Your task to perform on an android device: Search for razer deathadder on walmart.com, select the first entry, add it to the cart, then select checkout. Image 0: 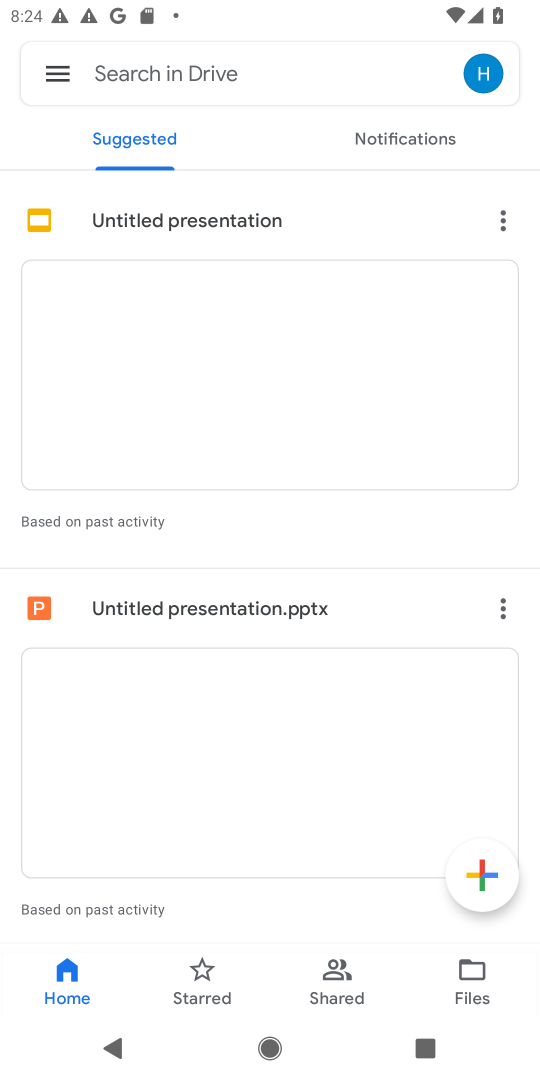
Step 0: press home button
Your task to perform on an android device: Search for razer deathadder on walmart.com, select the first entry, add it to the cart, then select checkout. Image 1: 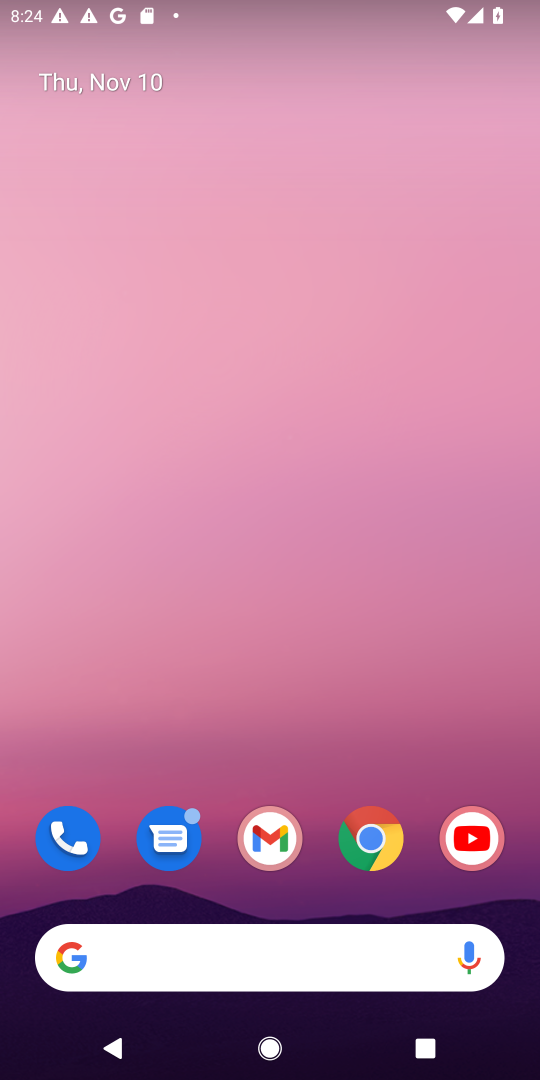
Step 1: drag from (307, 918) to (367, 83)
Your task to perform on an android device: Search for razer deathadder on walmart.com, select the first entry, add it to the cart, then select checkout. Image 2: 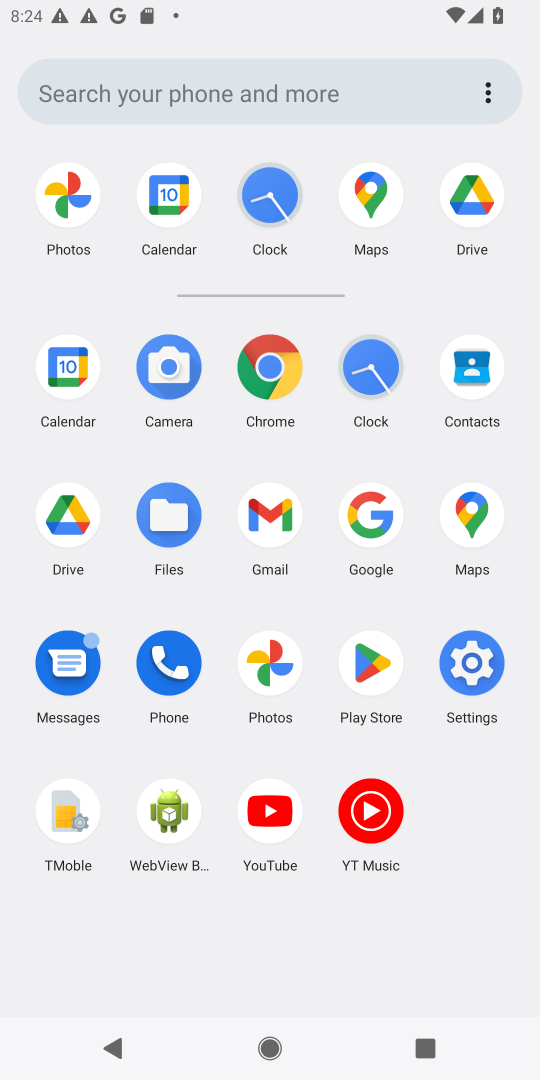
Step 2: click (278, 373)
Your task to perform on an android device: Search for razer deathadder on walmart.com, select the first entry, add it to the cart, then select checkout. Image 3: 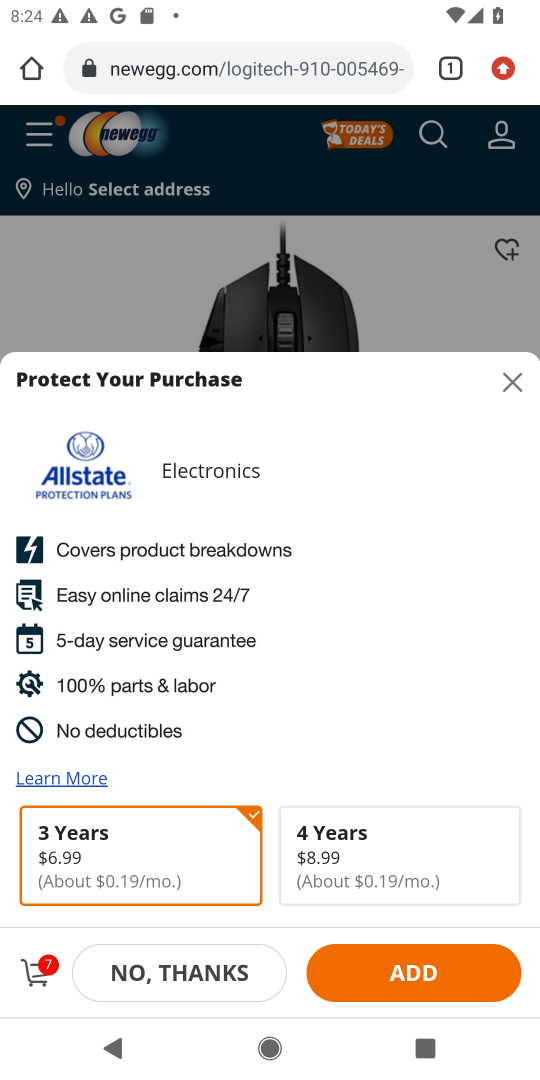
Step 3: click (244, 51)
Your task to perform on an android device: Search for razer deathadder on walmart.com, select the first entry, add it to the cart, then select checkout. Image 4: 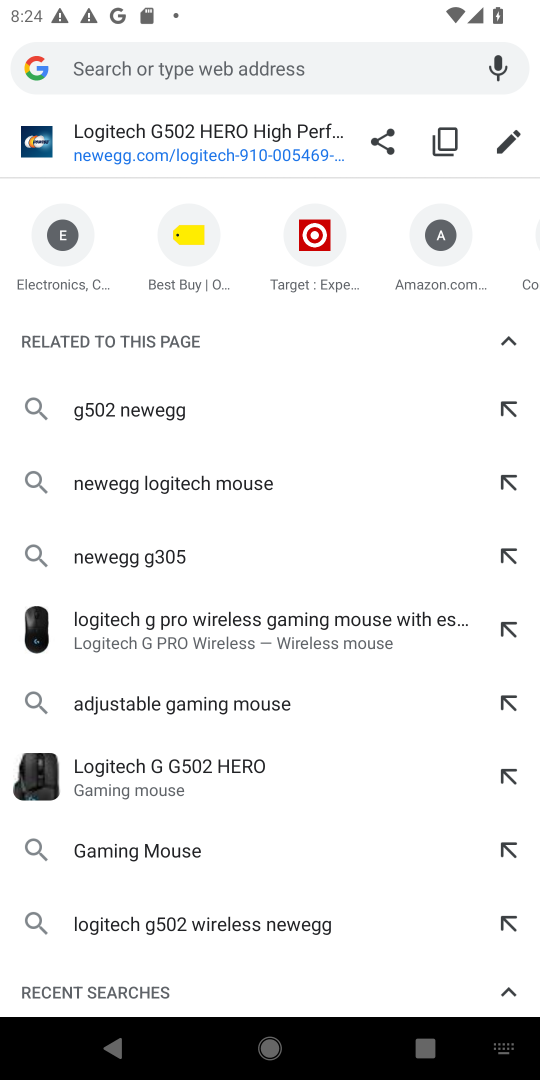
Step 4: type "walmart.com"
Your task to perform on an android device: Search for razer deathadder on walmart.com, select the first entry, add it to the cart, then select checkout. Image 5: 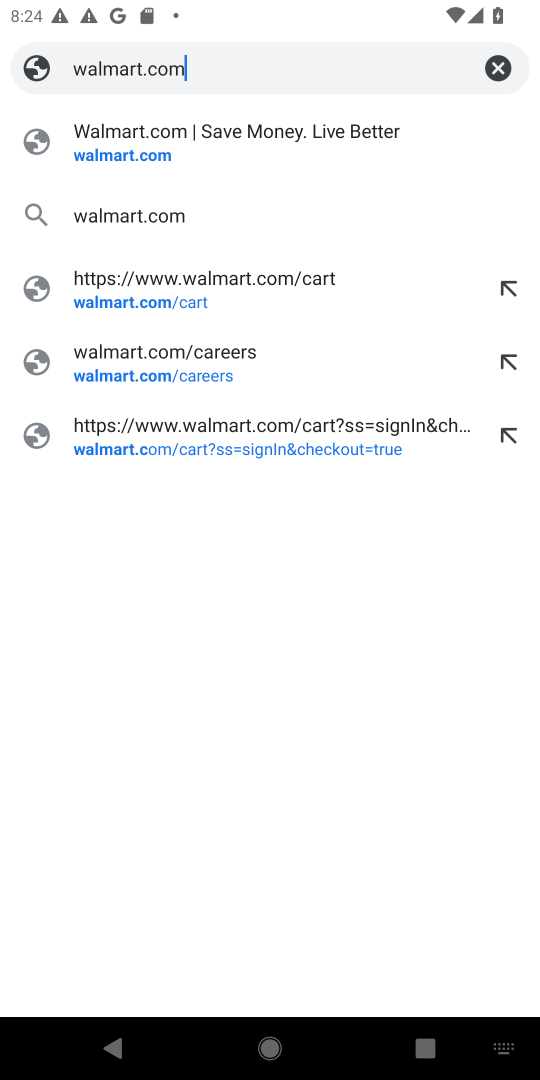
Step 5: press enter
Your task to perform on an android device: Search for razer deathadder on walmart.com, select the first entry, add it to the cart, then select checkout. Image 6: 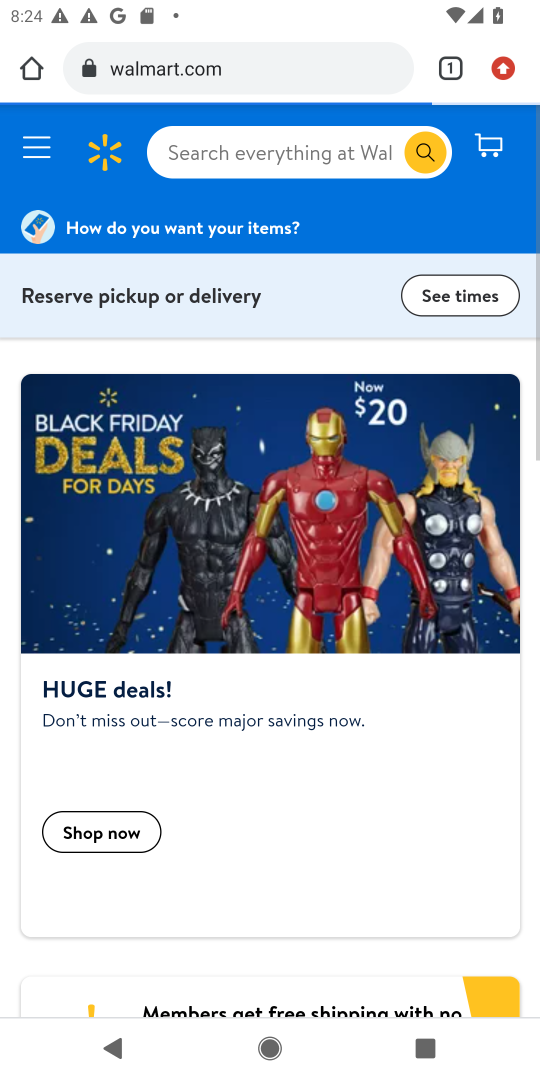
Step 6: click (240, 149)
Your task to perform on an android device: Search for razer deathadder on walmart.com, select the first entry, add it to the cart, then select checkout. Image 7: 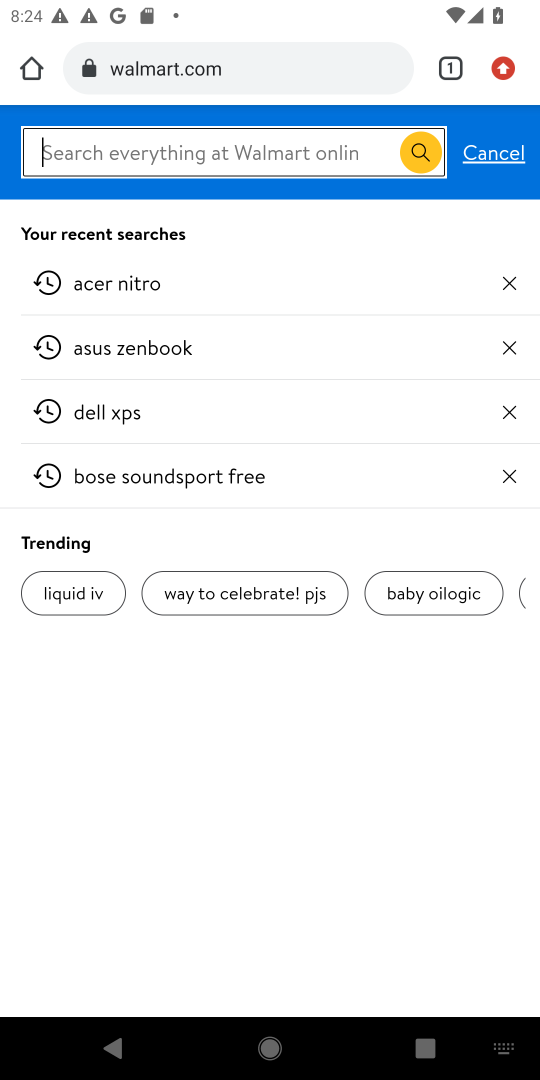
Step 7: type "razer deathadder"
Your task to perform on an android device: Search for razer deathadder on walmart.com, select the first entry, add it to the cart, then select checkout. Image 8: 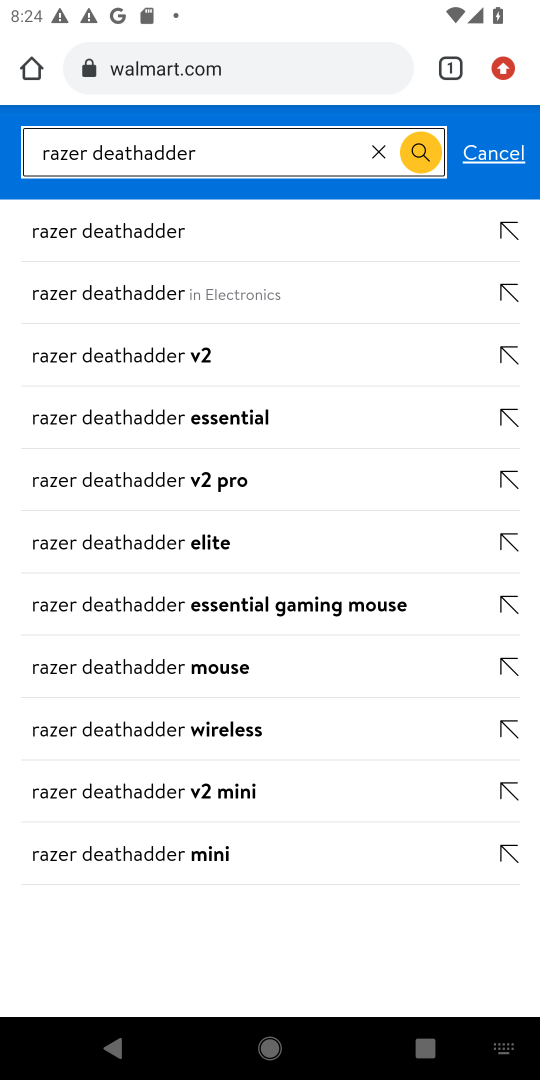
Step 8: press enter
Your task to perform on an android device: Search for razer deathadder on walmart.com, select the first entry, add it to the cart, then select checkout. Image 9: 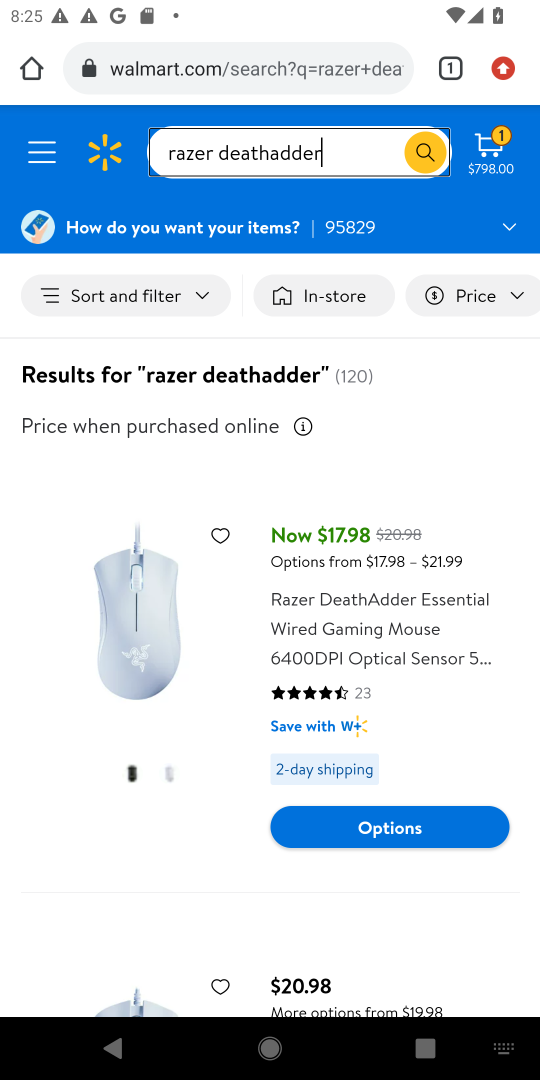
Step 9: drag from (415, 639) to (432, 399)
Your task to perform on an android device: Search for razer deathadder on walmart.com, select the first entry, add it to the cart, then select checkout. Image 10: 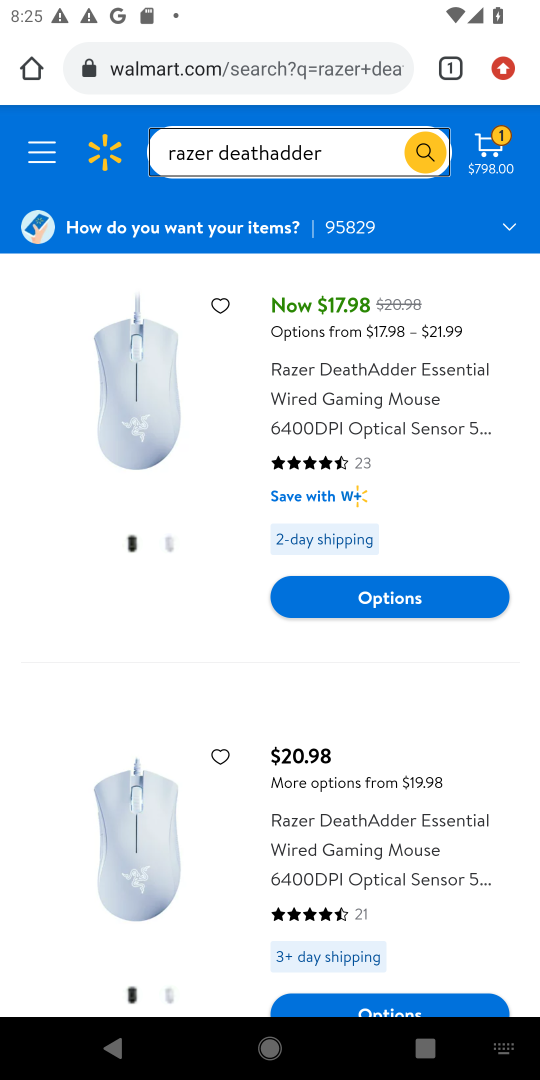
Step 10: click (438, 593)
Your task to perform on an android device: Search for razer deathadder on walmart.com, select the first entry, add it to the cart, then select checkout. Image 11: 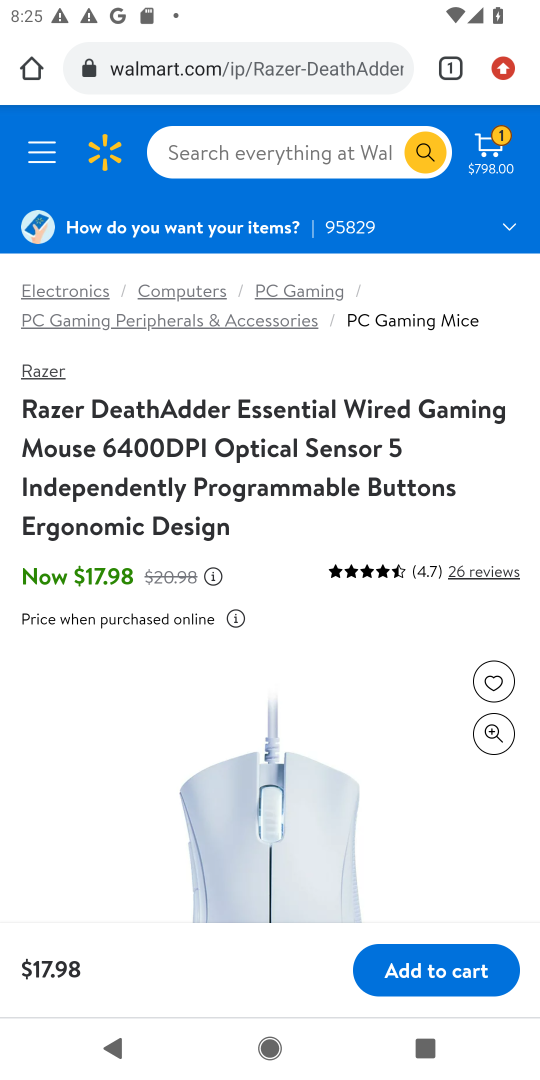
Step 11: drag from (300, 839) to (339, 234)
Your task to perform on an android device: Search for razer deathadder on walmart.com, select the first entry, add it to the cart, then select checkout. Image 12: 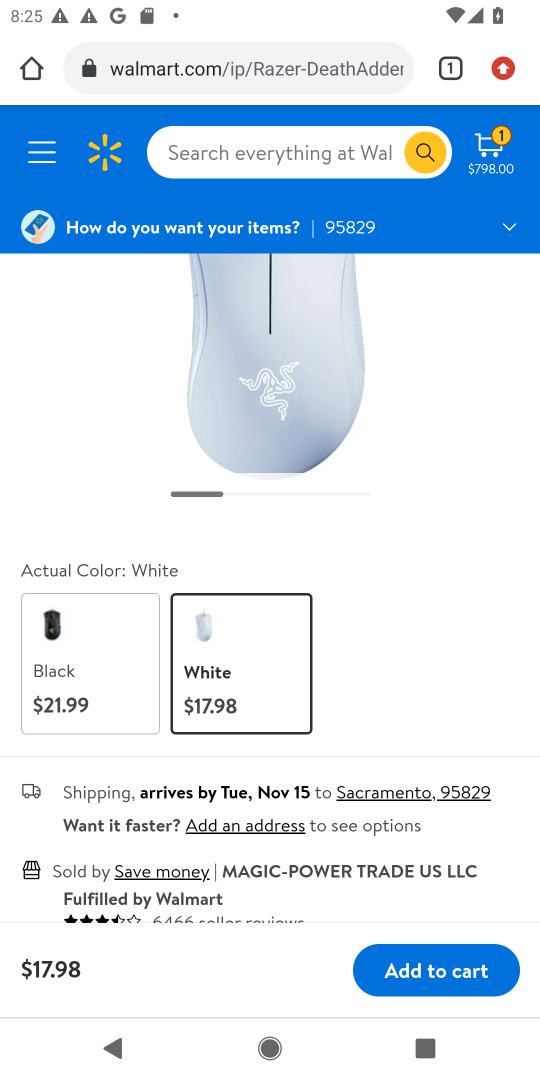
Step 12: click (467, 979)
Your task to perform on an android device: Search for razer deathadder on walmart.com, select the first entry, add it to the cart, then select checkout. Image 13: 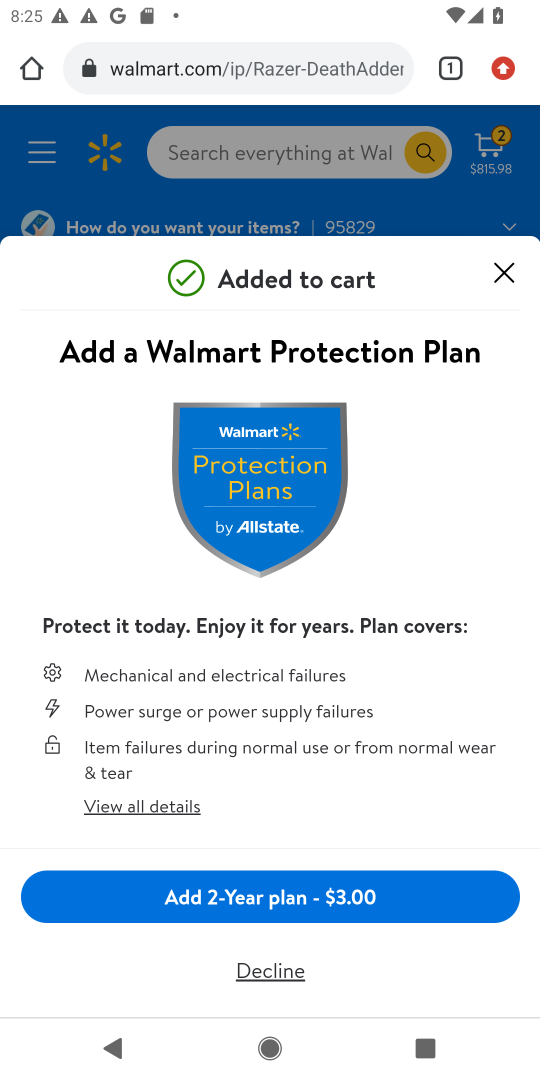
Step 13: task complete